Your task to perform on an android device: uninstall "Lyft - Rideshare, Bikes, Scooters & Transit" Image 0: 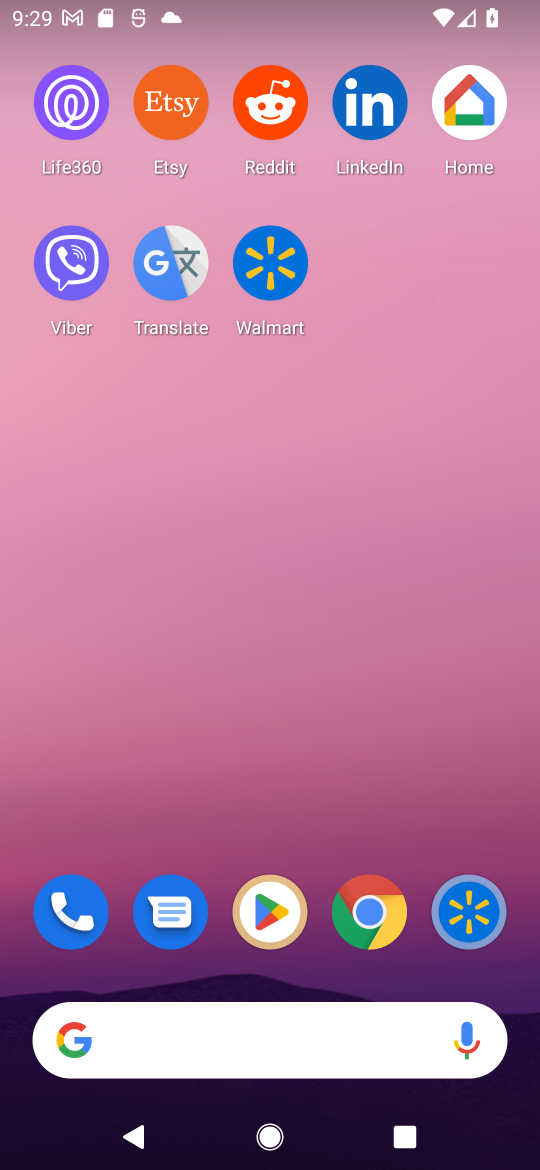
Step 0: drag from (514, 975) to (264, 25)
Your task to perform on an android device: uninstall "Lyft - Rideshare, Bikes, Scooters & Transit" Image 1: 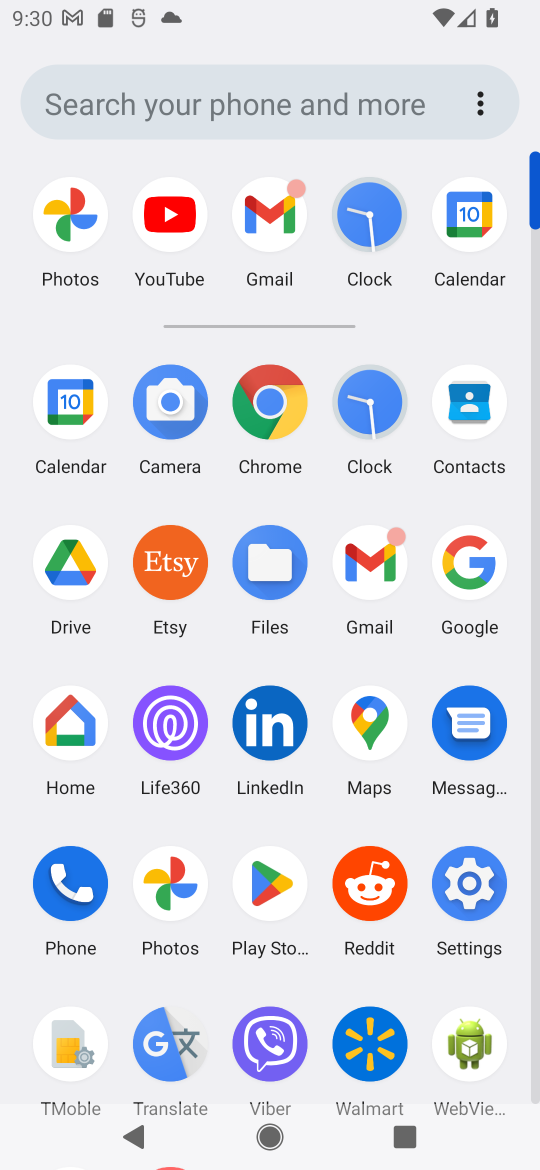
Step 1: click (277, 911)
Your task to perform on an android device: uninstall "Lyft - Rideshare, Bikes, Scooters & Transit" Image 2: 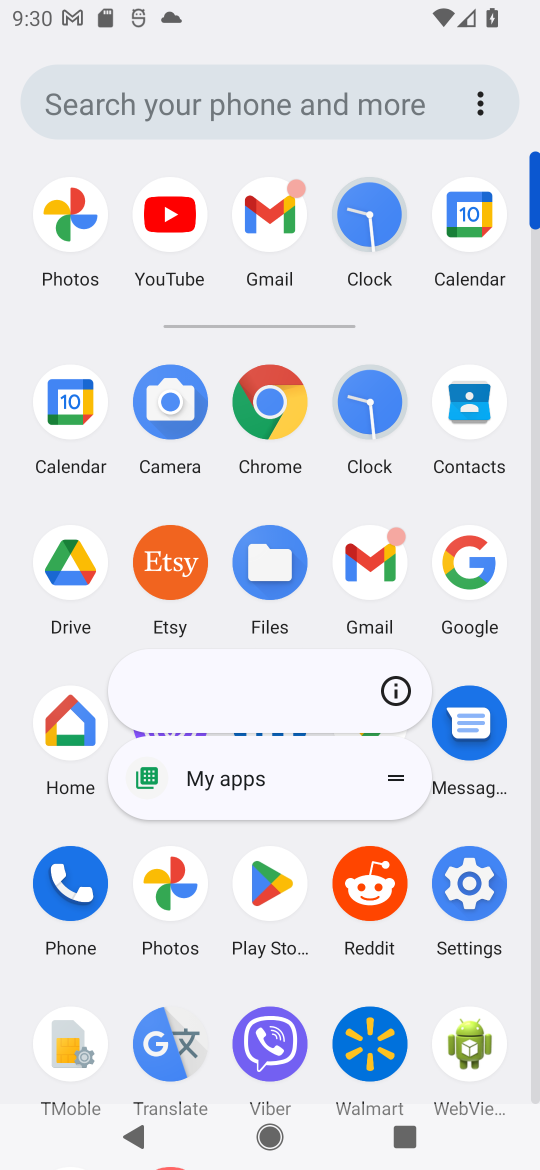
Step 2: click (271, 902)
Your task to perform on an android device: uninstall "Lyft - Rideshare, Bikes, Scooters & Transit" Image 3: 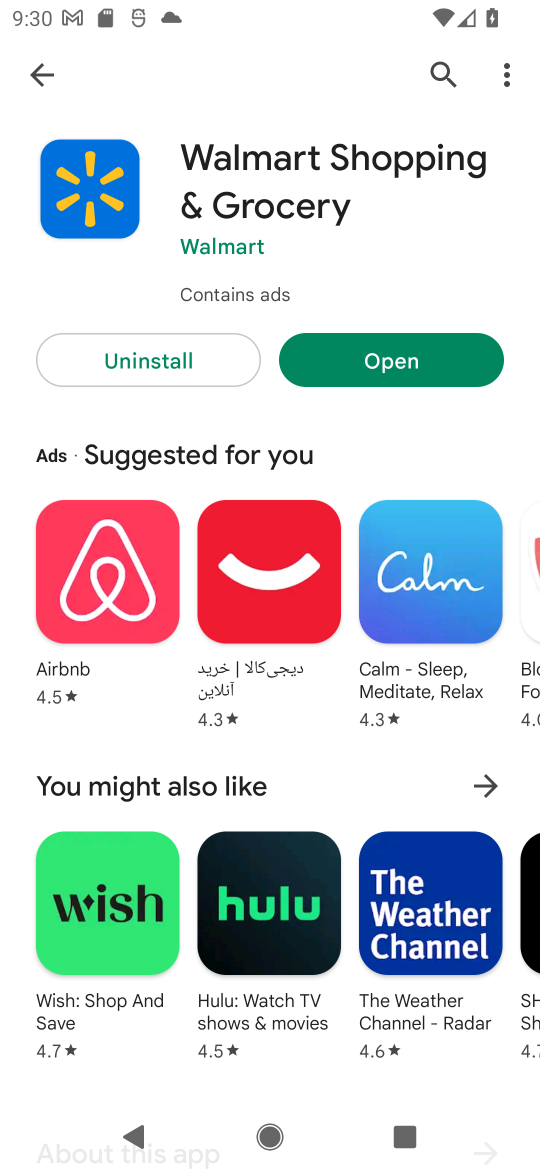
Step 3: press back button
Your task to perform on an android device: uninstall "Lyft - Rideshare, Bikes, Scooters & Transit" Image 4: 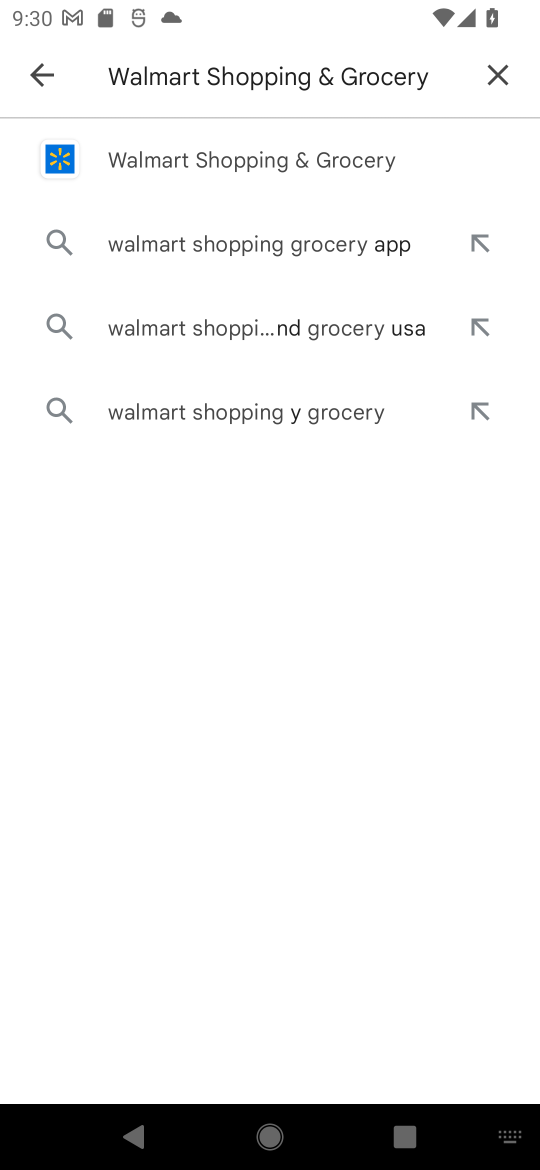
Step 4: press back button
Your task to perform on an android device: uninstall "Lyft - Rideshare, Bikes, Scooters & Transit" Image 5: 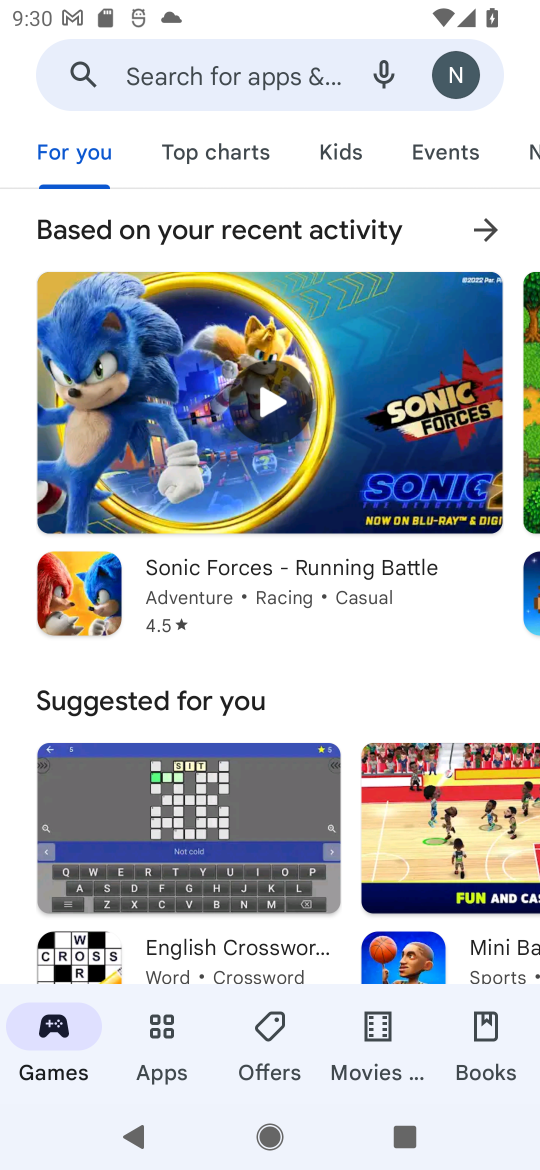
Step 5: click (111, 84)
Your task to perform on an android device: uninstall "Lyft - Rideshare, Bikes, Scooters & Transit" Image 6: 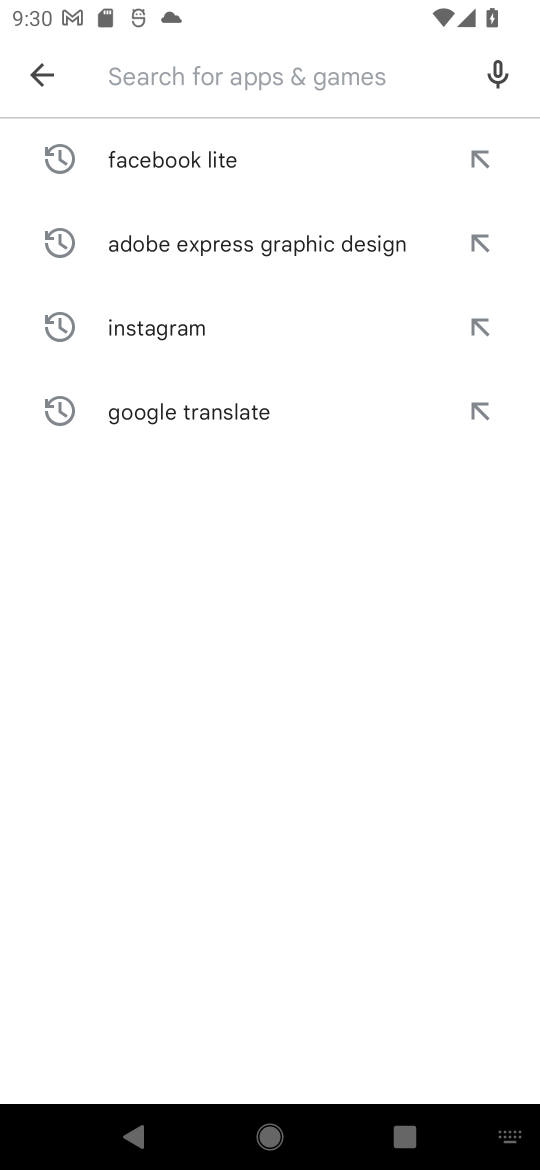
Step 6: type "Lyft - Rideshare, Bikes, Scooters & Transit"
Your task to perform on an android device: uninstall "Lyft - Rideshare, Bikes, Scooters & Transit" Image 7: 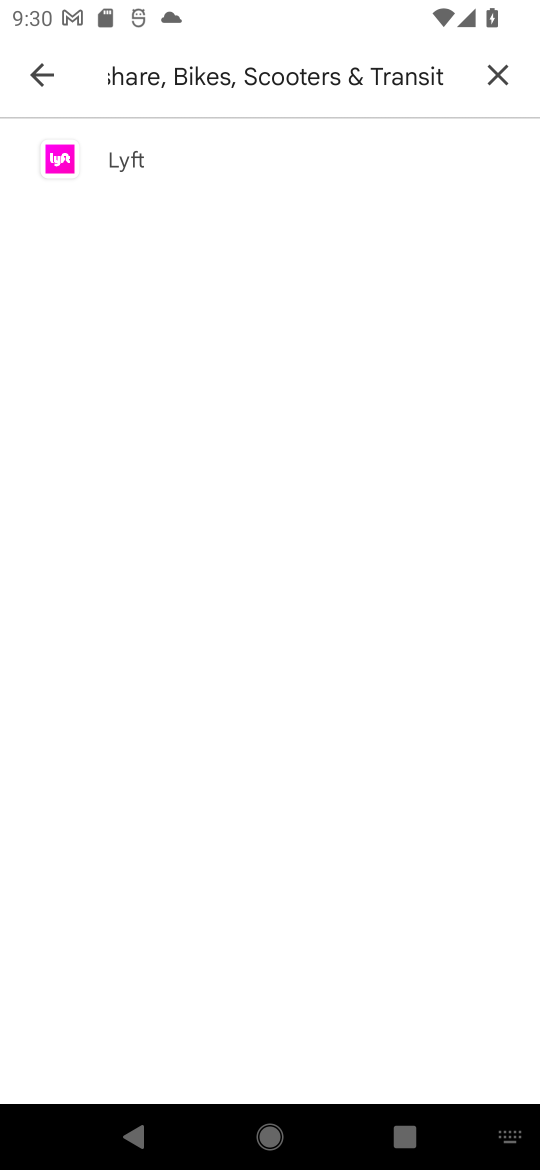
Step 7: click (178, 160)
Your task to perform on an android device: uninstall "Lyft - Rideshare, Bikes, Scooters & Transit" Image 8: 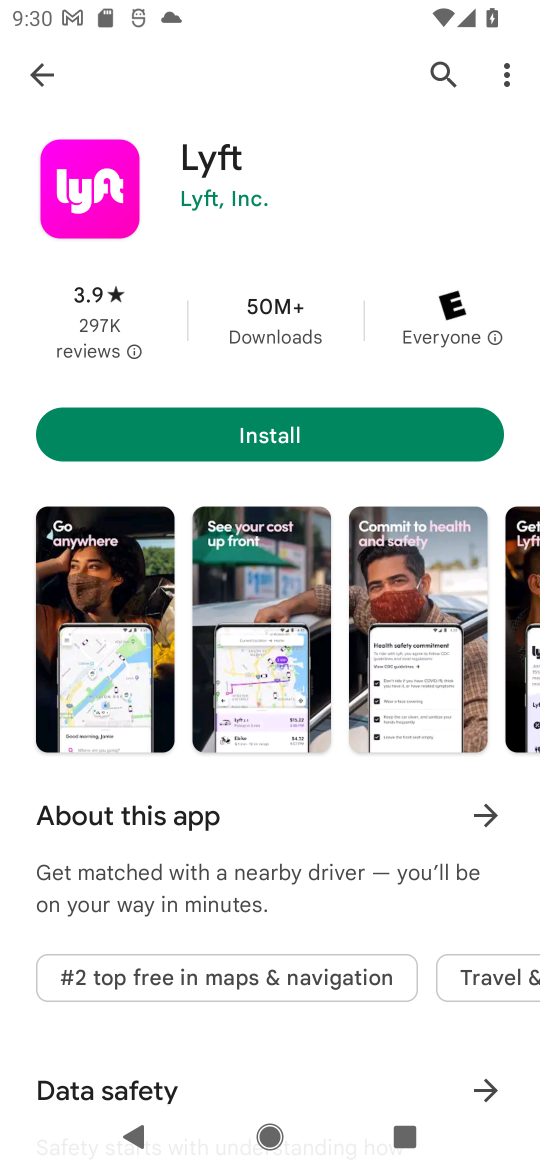
Step 8: task complete